Your task to perform on an android device: Open internet settings Image 0: 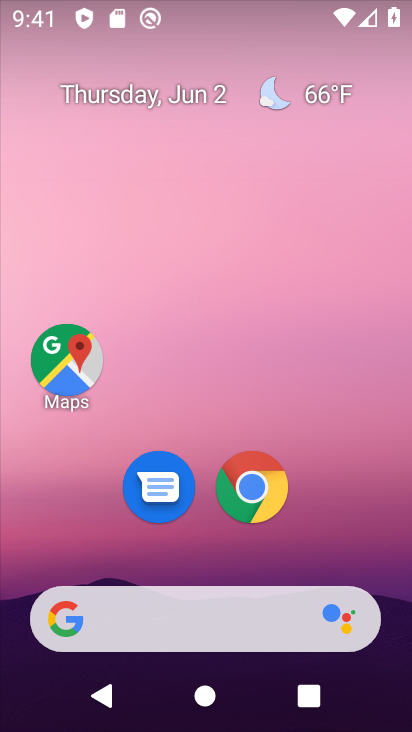
Step 0: drag from (231, 730) to (219, 97)
Your task to perform on an android device: Open internet settings Image 1: 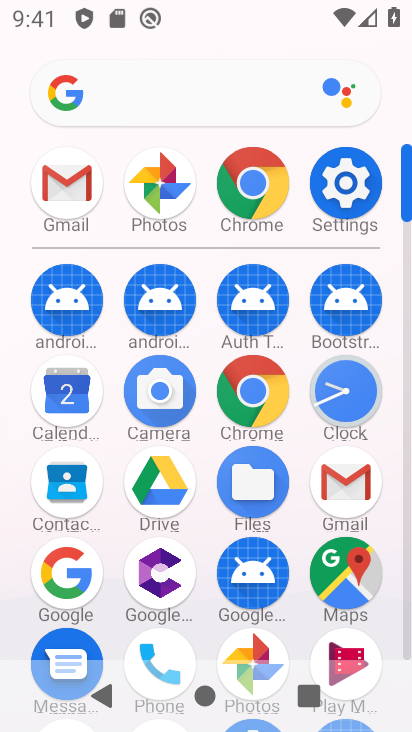
Step 1: click (350, 183)
Your task to perform on an android device: Open internet settings Image 2: 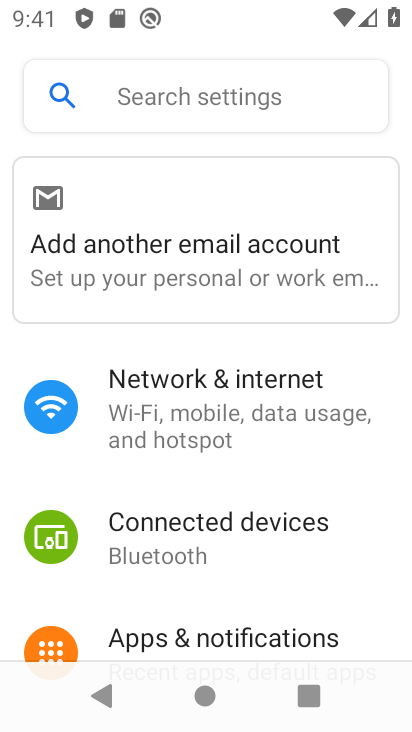
Step 2: click (154, 388)
Your task to perform on an android device: Open internet settings Image 3: 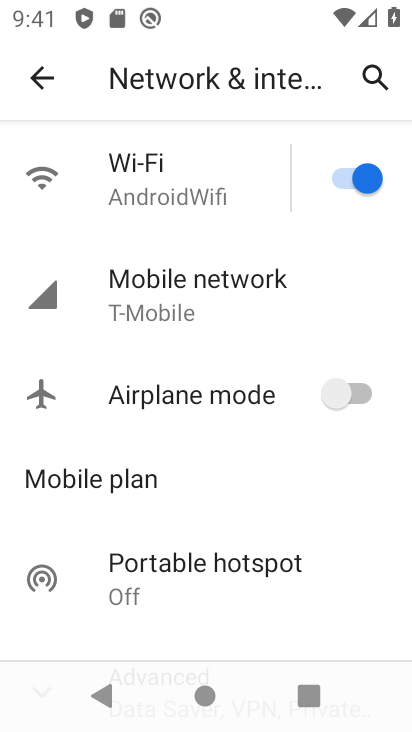
Step 3: task complete